Your task to perform on an android device: see creations saved in the google photos Image 0: 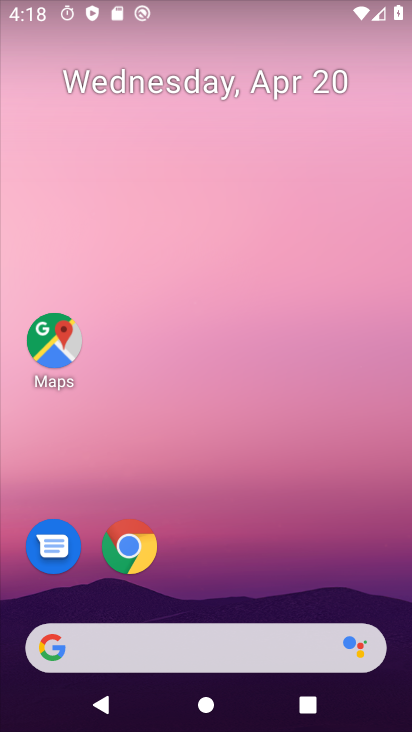
Step 0: drag from (293, 550) to (296, 79)
Your task to perform on an android device: see creations saved in the google photos Image 1: 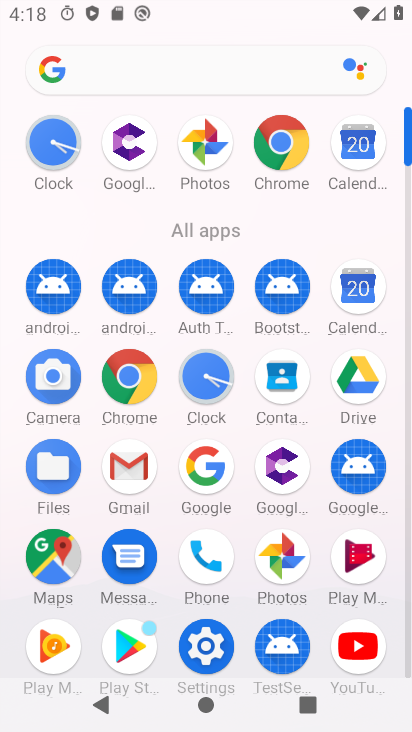
Step 1: click (286, 538)
Your task to perform on an android device: see creations saved in the google photos Image 2: 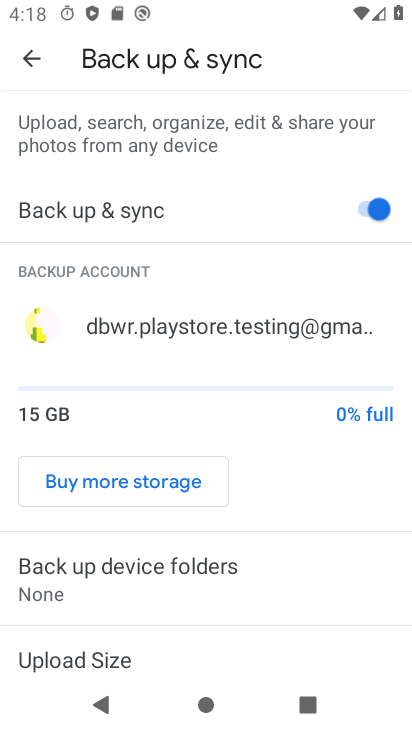
Step 2: click (25, 49)
Your task to perform on an android device: see creations saved in the google photos Image 3: 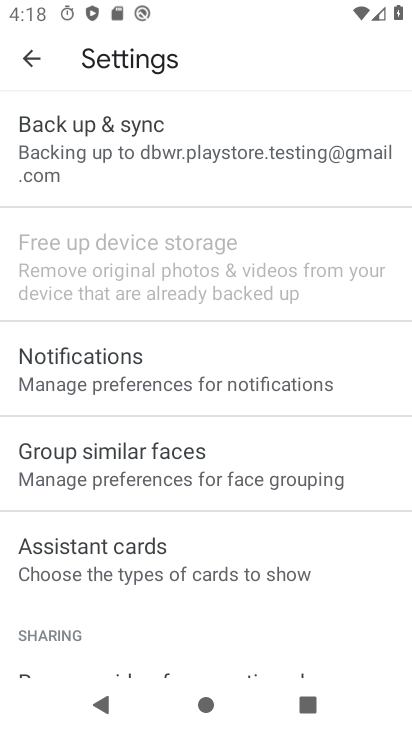
Step 3: click (32, 45)
Your task to perform on an android device: see creations saved in the google photos Image 4: 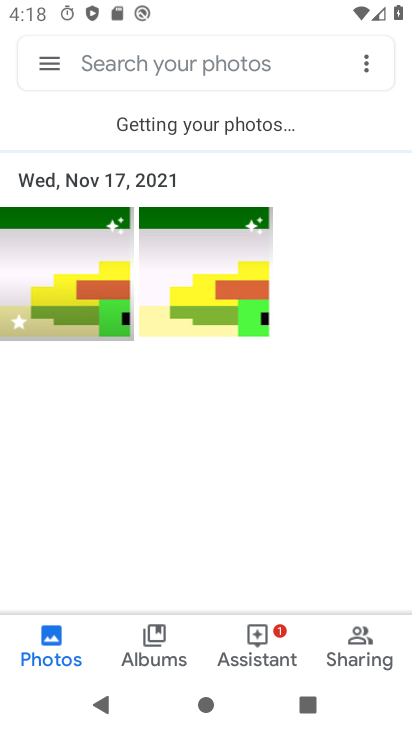
Step 4: click (191, 59)
Your task to perform on an android device: see creations saved in the google photos Image 5: 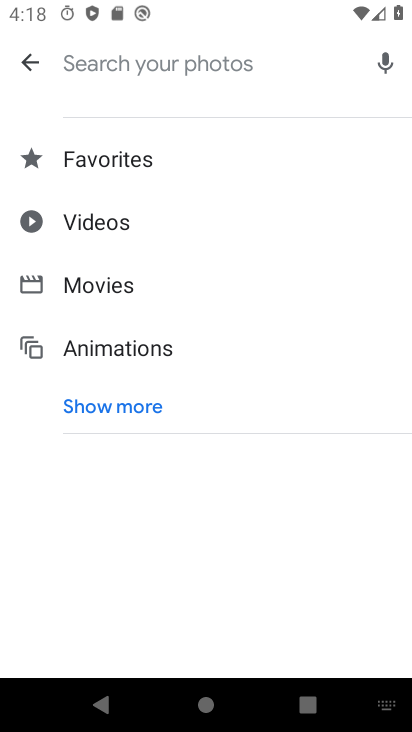
Step 5: click (153, 402)
Your task to perform on an android device: see creations saved in the google photos Image 6: 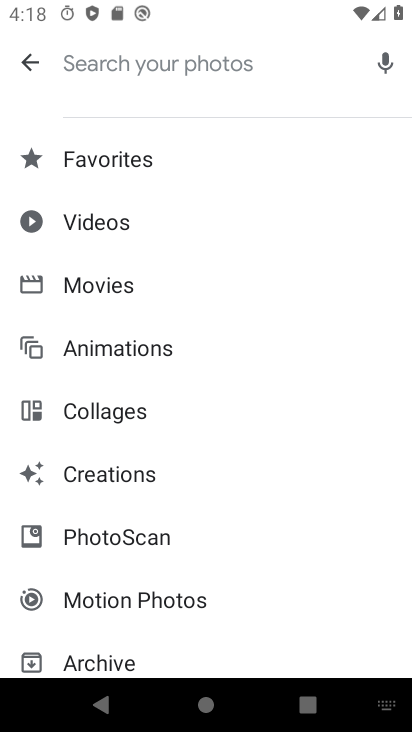
Step 6: click (148, 466)
Your task to perform on an android device: see creations saved in the google photos Image 7: 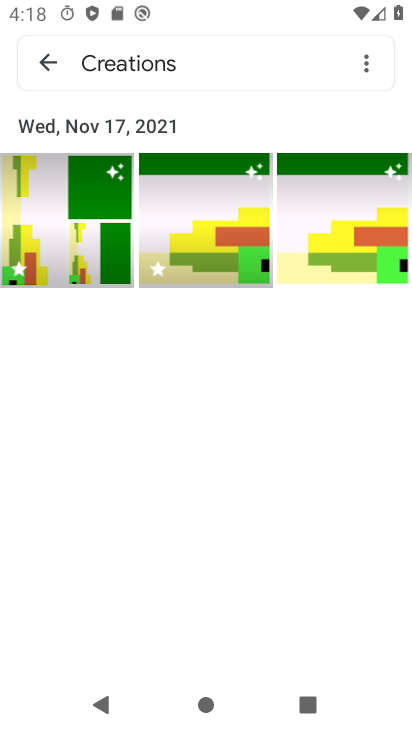
Step 7: task complete